Your task to perform on an android device: clear all cookies in the chrome app Image 0: 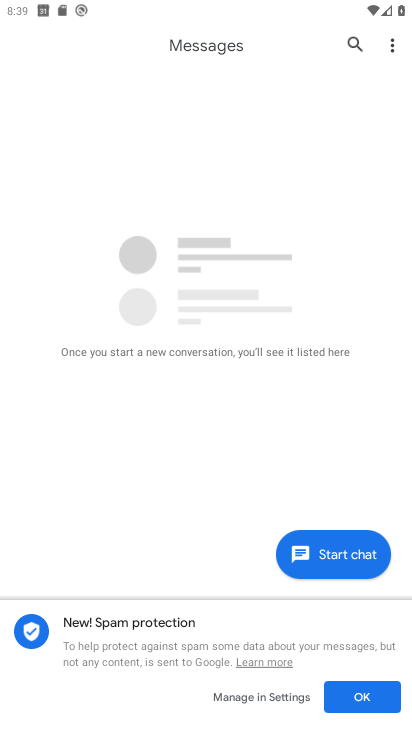
Step 0: press home button
Your task to perform on an android device: clear all cookies in the chrome app Image 1: 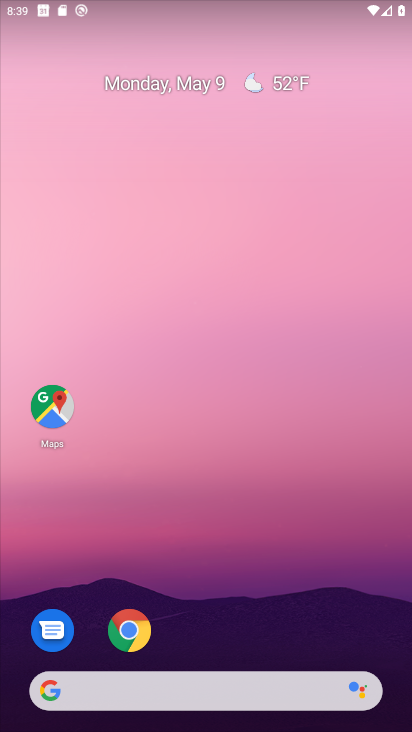
Step 1: click (137, 630)
Your task to perform on an android device: clear all cookies in the chrome app Image 2: 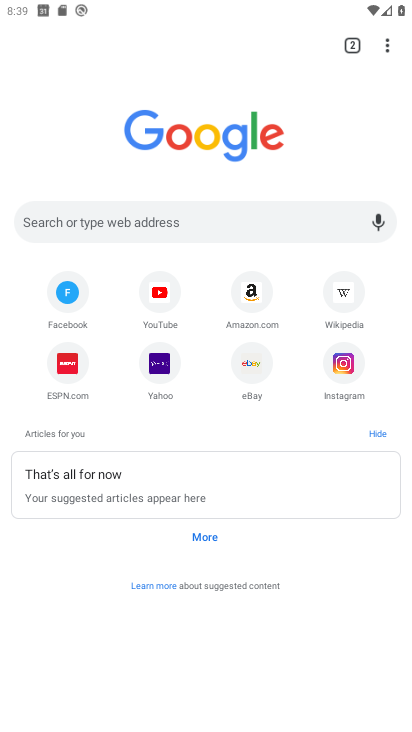
Step 2: click (382, 41)
Your task to perform on an android device: clear all cookies in the chrome app Image 3: 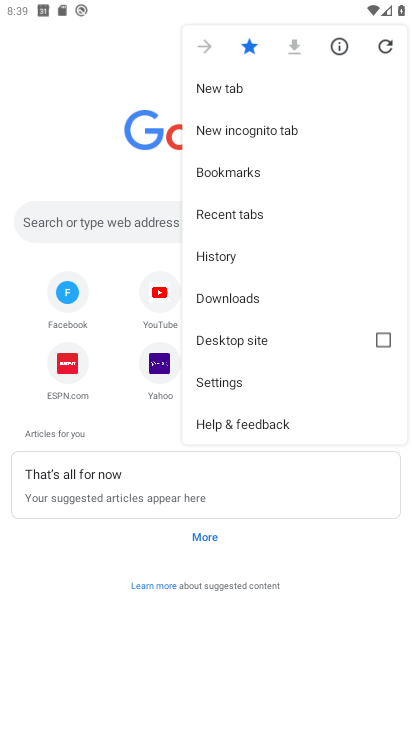
Step 3: click (229, 257)
Your task to perform on an android device: clear all cookies in the chrome app Image 4: 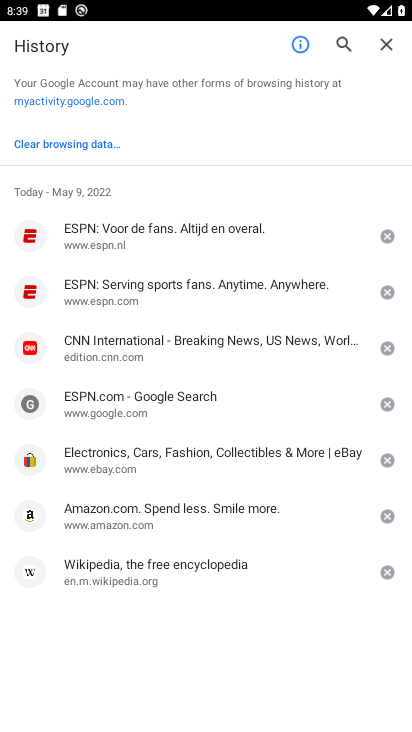
Step 4: click (59, 143)
Your task to perform on an android device: clear all cookies in the chrome app Image 5: 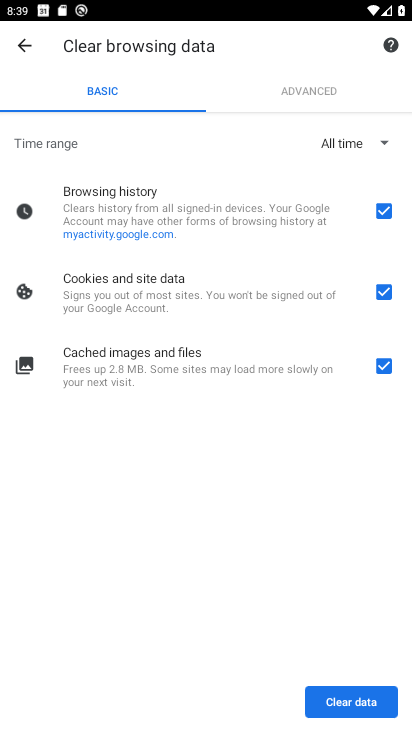
Step 5: click (362, 214)
Your task to perform on an android device: clear all cookies in the chrome app Image 6: 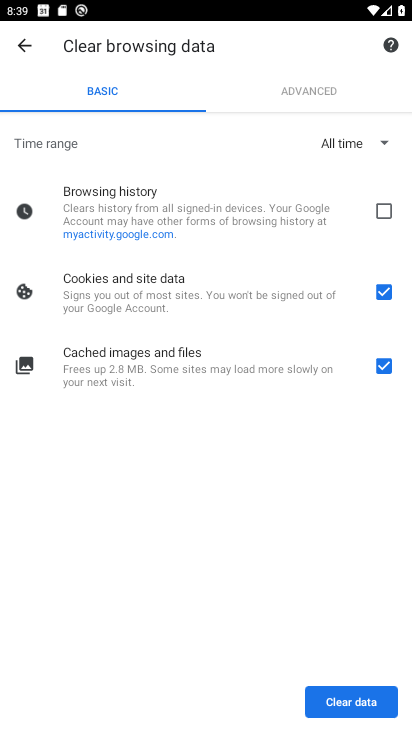
Step 6: click (335, 364)
Your task to perform on an android device: clear all cookies in the chrome app Image 7: 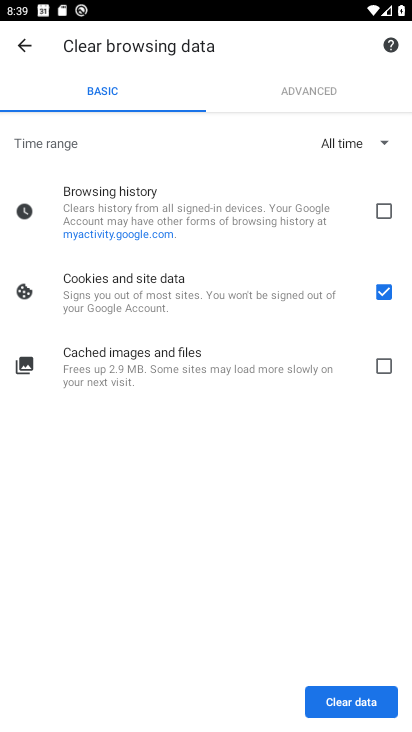
Step 7: click (326, 691)
Your task to perform on an android device: clear all cookies in the chrome app Image 8: 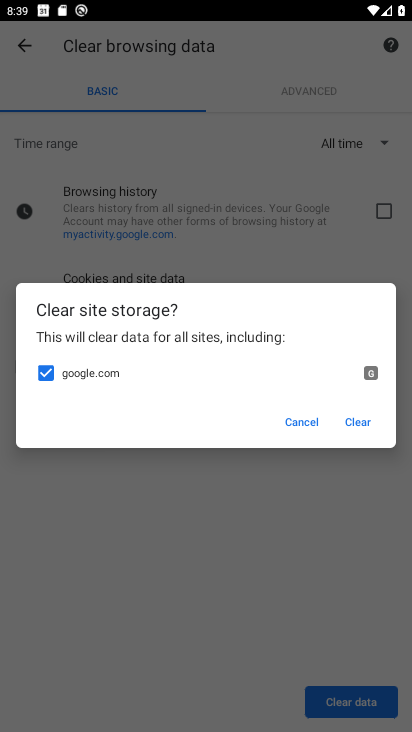
Step 8: click (357, 423)
Your task to perform on an android device: clear all cookies in the chrome app Image 9: 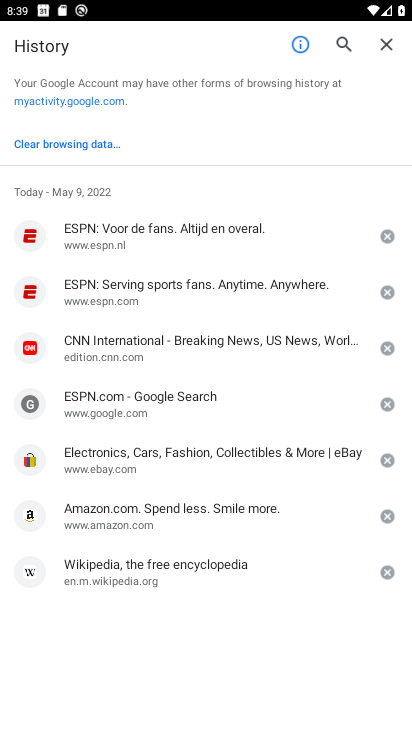
Step 9: task complete